Your task to perform on an android device: turn off location history Image 0: 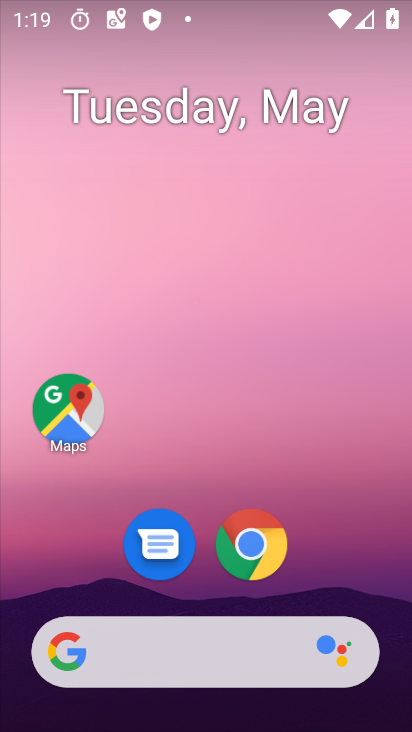
Step 0: drag from (158, 694) to (251, 87)
Your task to perform on an android device: turn off location history Image 1: 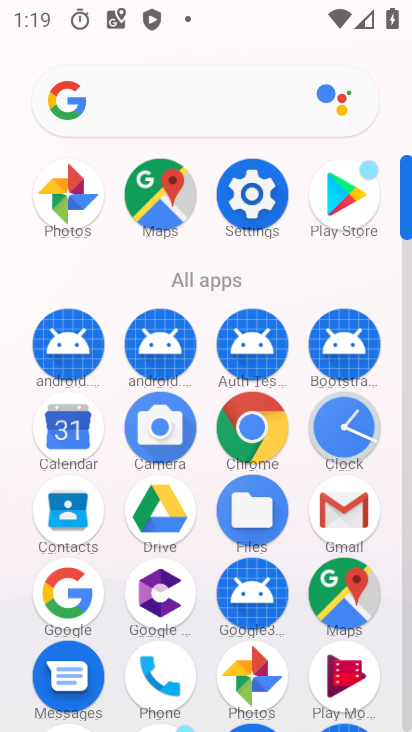
Step 1: click (243, 193)
Your task to perform on an android device: turn off location history Image 2: 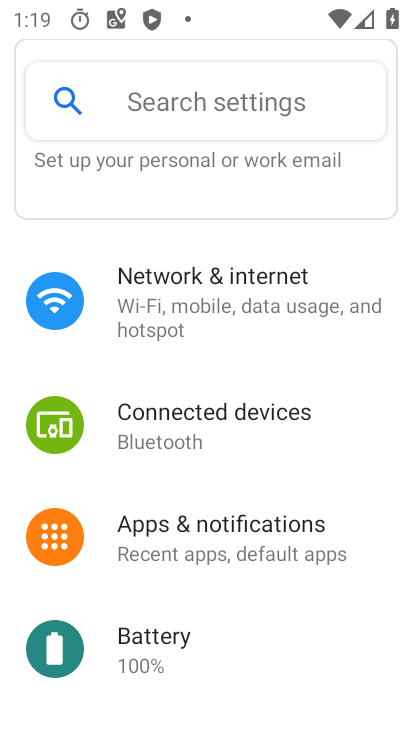
Step 2: drag from (251, 669) to (285, 327)
Your task to perform on an android device: turn off location history Image 3: 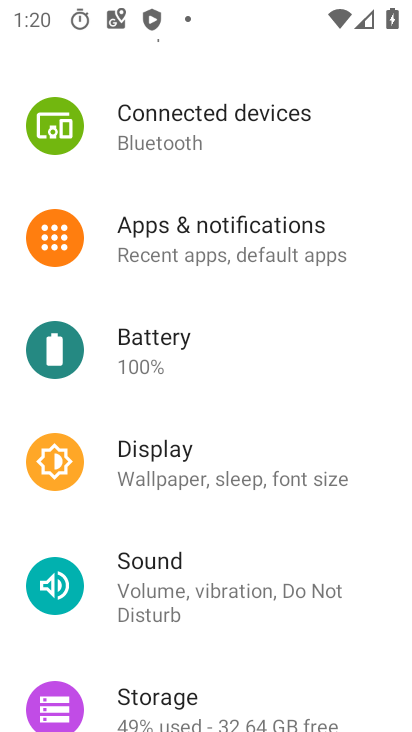
Step 3: drag from (232, 662) to (134, 215)
Your task to perform on an android device: turn off location history Image 4: 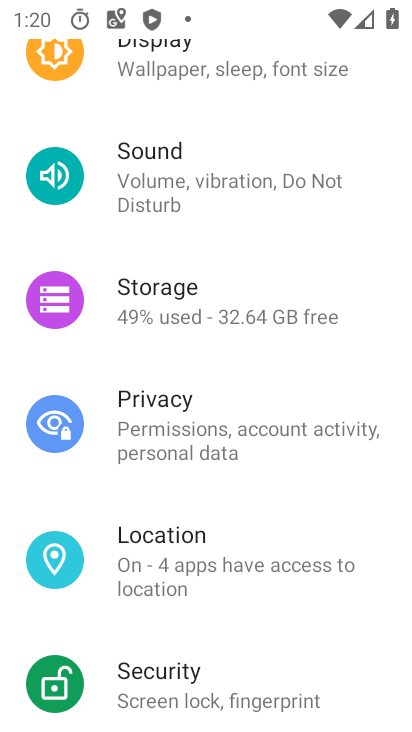
Step 4: click (158, 543)
Your task to perform on an android device: turn off location history Image 5: 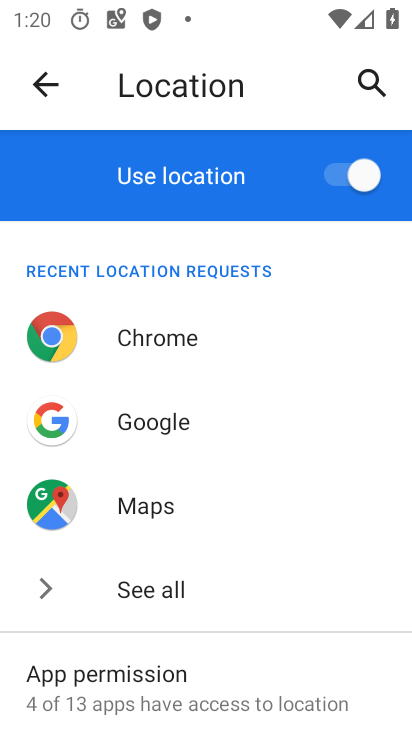
Step 5: drag from (239, 645) to (244, 248)
Your task to perform on an android device: turn off location history Image 6: 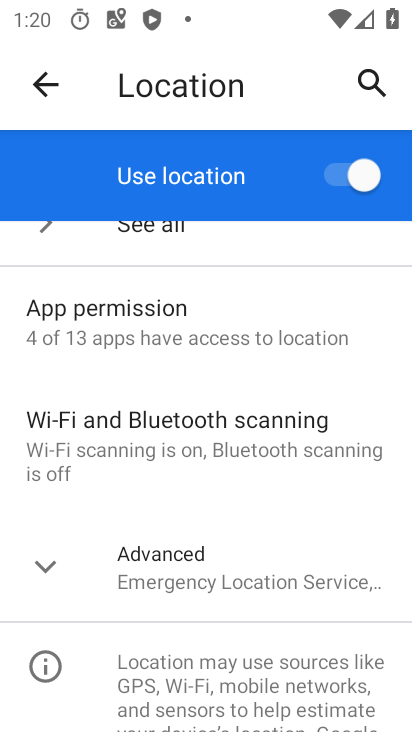
Step 6: click (221, 595)
Your task to perform on an android device: turn off location history Image 7: 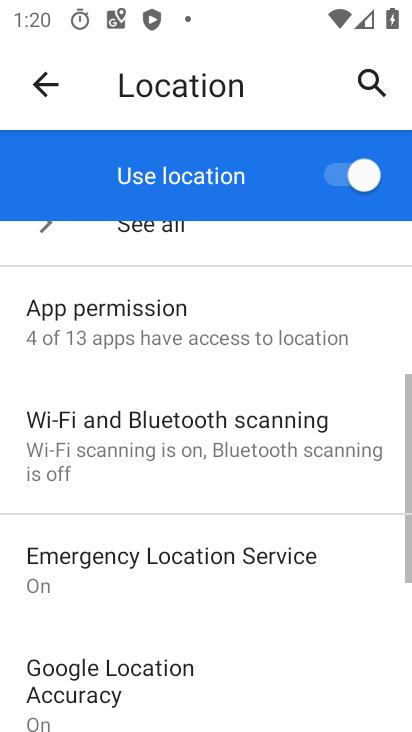
Step 7: drag from (218, 670) to (211, 358)
Your task to perform on an android device: turn off location history Image 8: 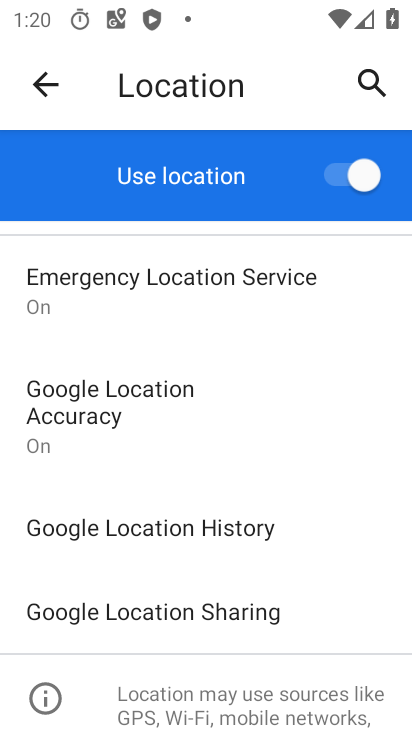
Step 8: click (157, 548)
Your task to perform on an android device: turn off location history Image 9: 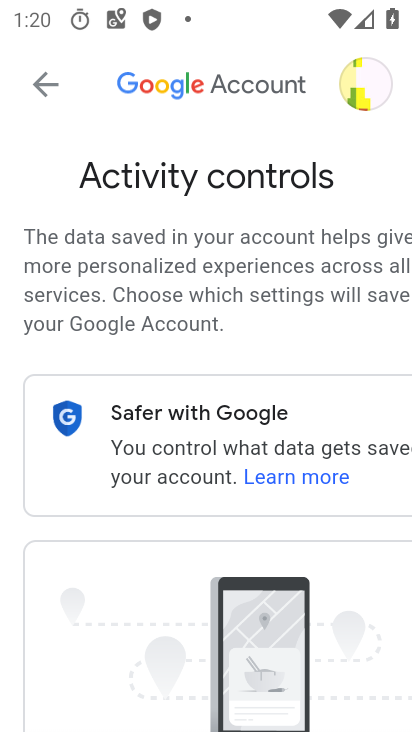
Step 9: task complete